Your task to perform on an android device: Open Wikipedia Image 0: 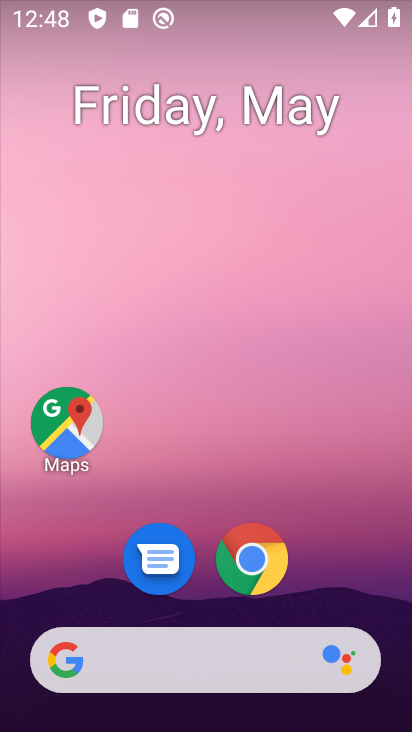
Step 0: drag from (361, 545) to (305, 150)
Your task to perform on an android device: Open Wikipedia Image 1: 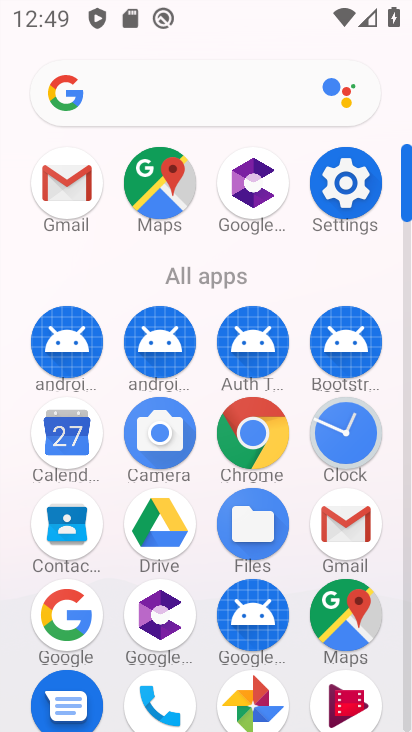
Step 1: drag from (323, 670) to (334, 352)
Your task to perform on an android device: Open Wikipedia Image 2: 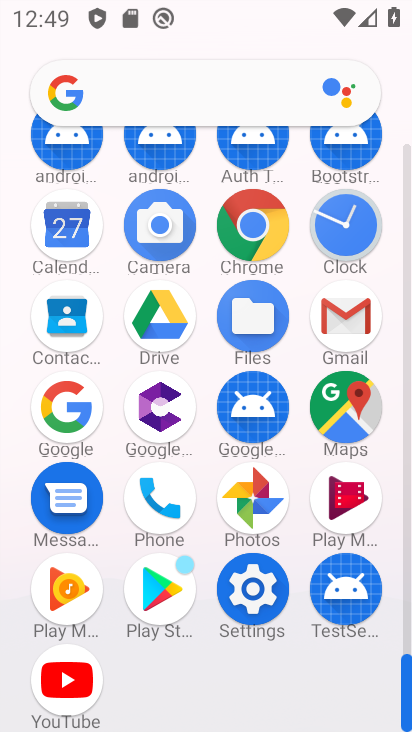
Step 2: click (244, 234)
Your task to perform on an android device: Open Wikipedia Image 3: 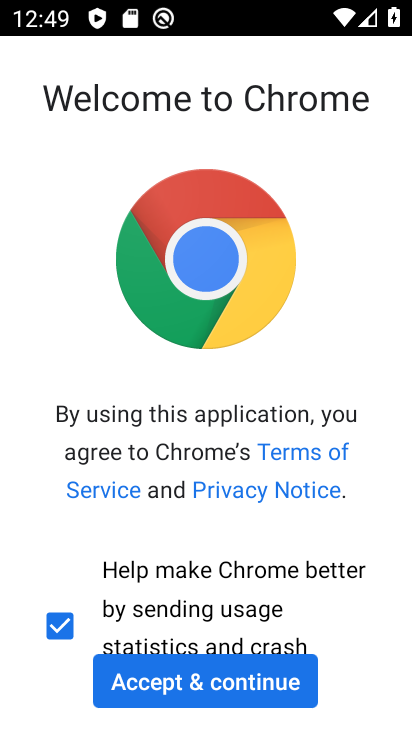
Step 3: click (269, 700)
Your task to perform on an android device: Open Wikipedia Image 4: 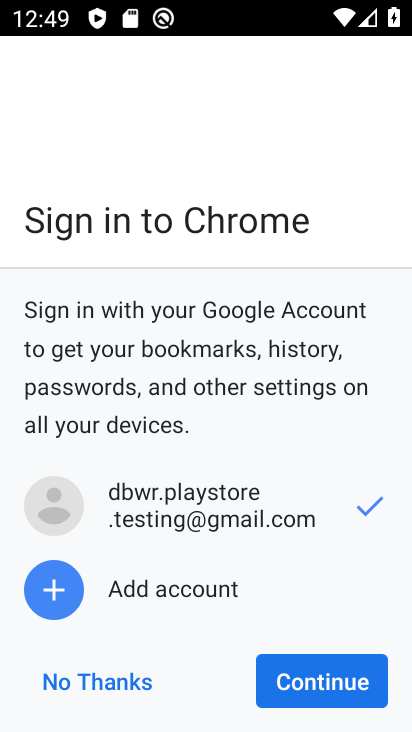
Step 4: click (336, 678)
Your task to perform on an android device: Open Wikipedia Image 5: 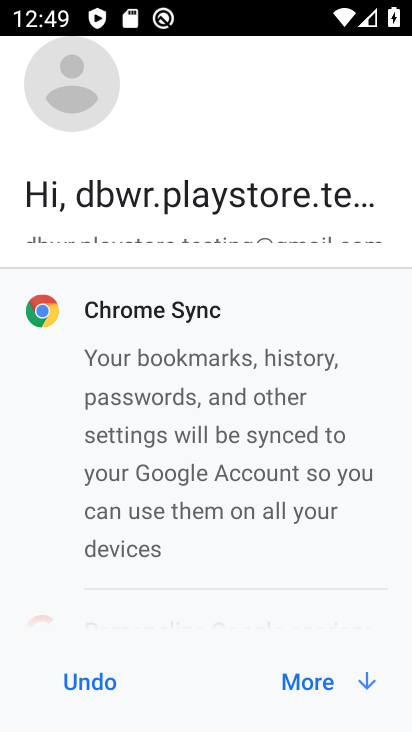
Step 5: click (336, 678)
Your task to perform on an android device: Open Wikipedia Image 6: 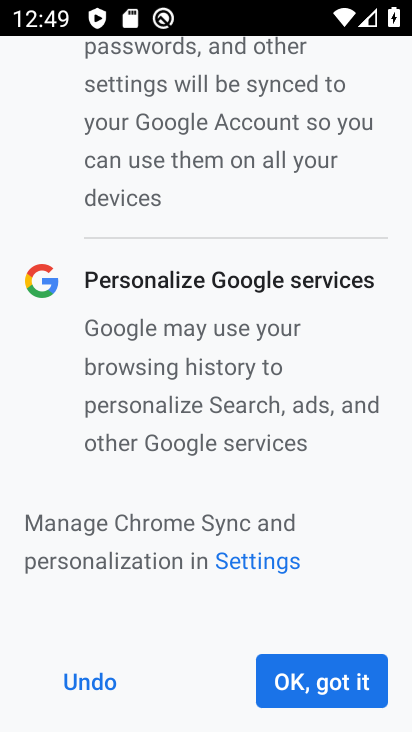
Step 6: click (336, 678)
Your task to perform on an android device: Open Wikipedia Image 7: 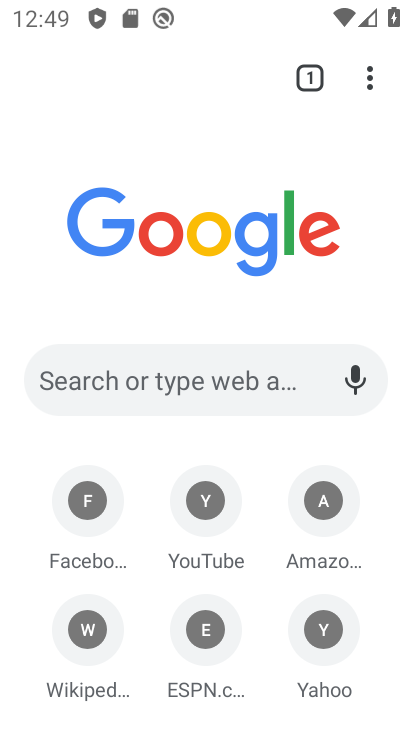
Step 7: click (135, 370)
Your task to perform on an android device: Open Wikipedia Image 8: 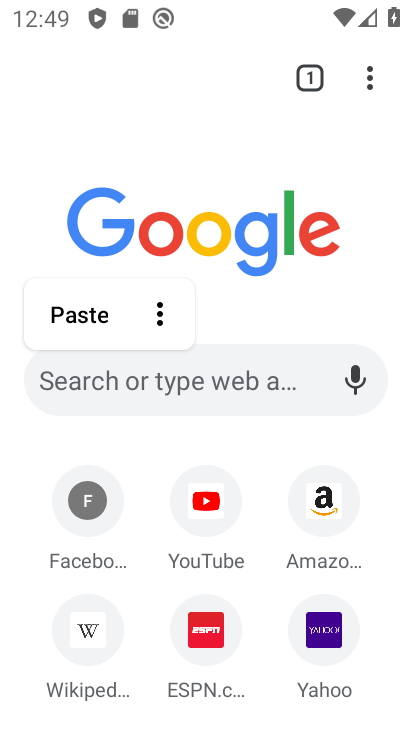
Step 8: type "wikipedia"
Your task to perform on an android device: Open Wikipedia Image 9: 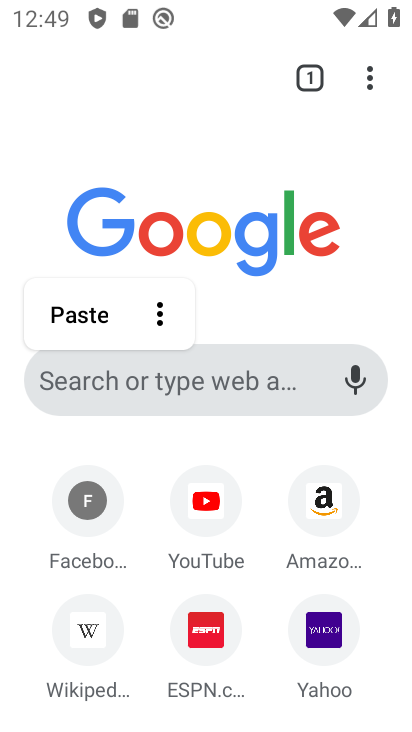
Step 9: click (197, 391)
Your task to perform on an android device: Open Wikipedia Image 10: 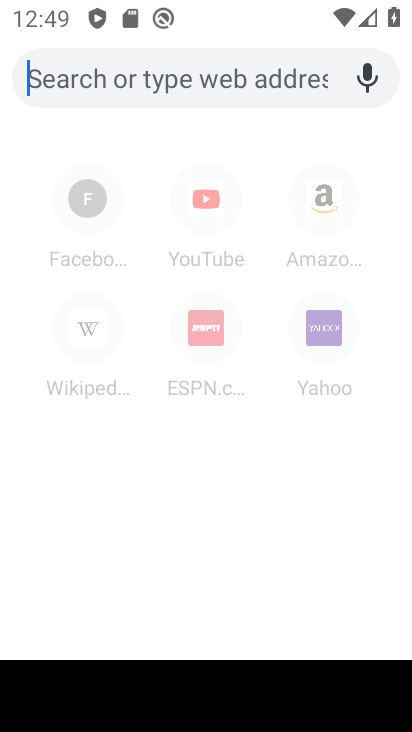
Step 10: click (86, 397)
Your task to perform on an android device: Open Wikipedia Image 11: 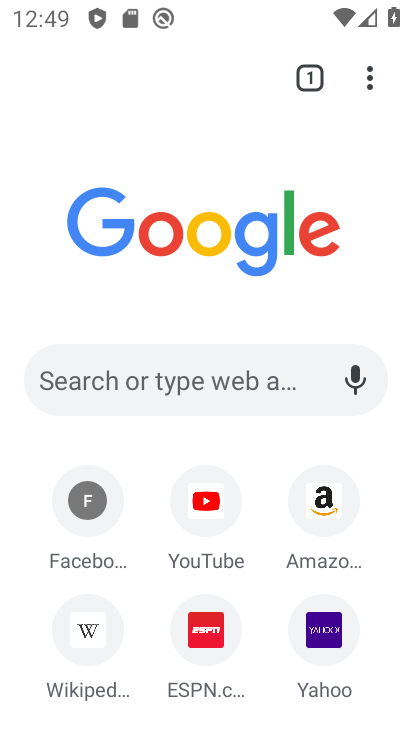
Step 11: click (63, 689)
Your task to perform on an android device: Open Wikipedia Image 12: 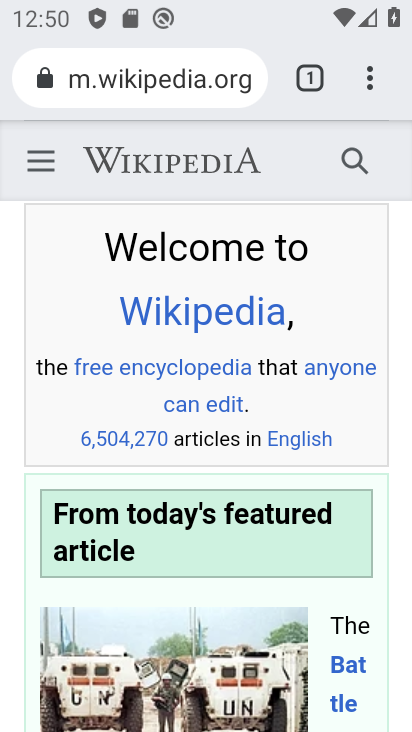
Step 12: task complete